Your task to perform on an android device: open app "Google Chrome" Image 0: 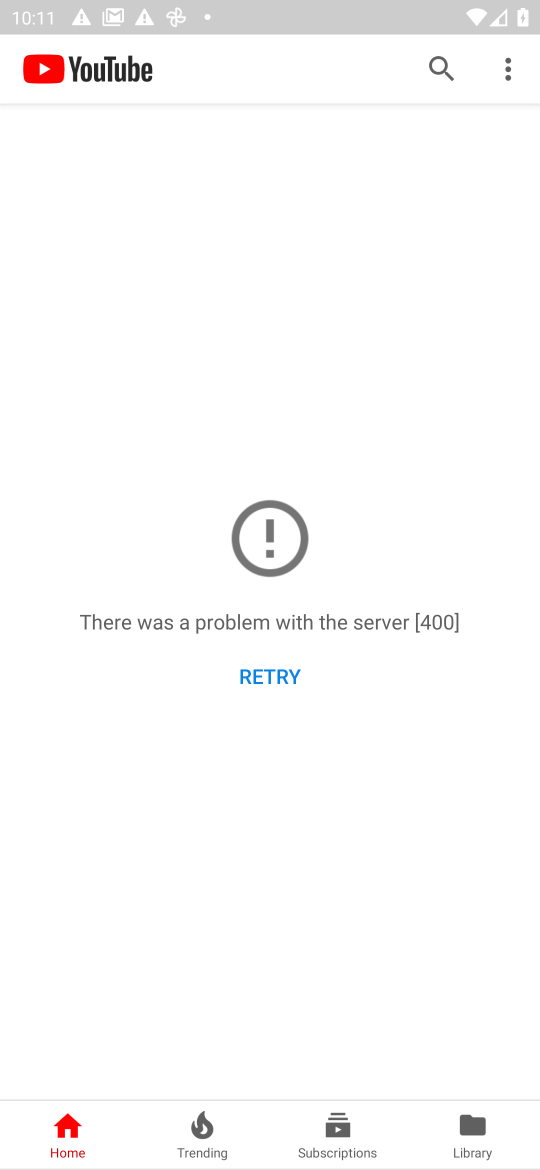
Step 0: press home button
Your task to perform on an android device: open app "Google Chrome" Image 1: 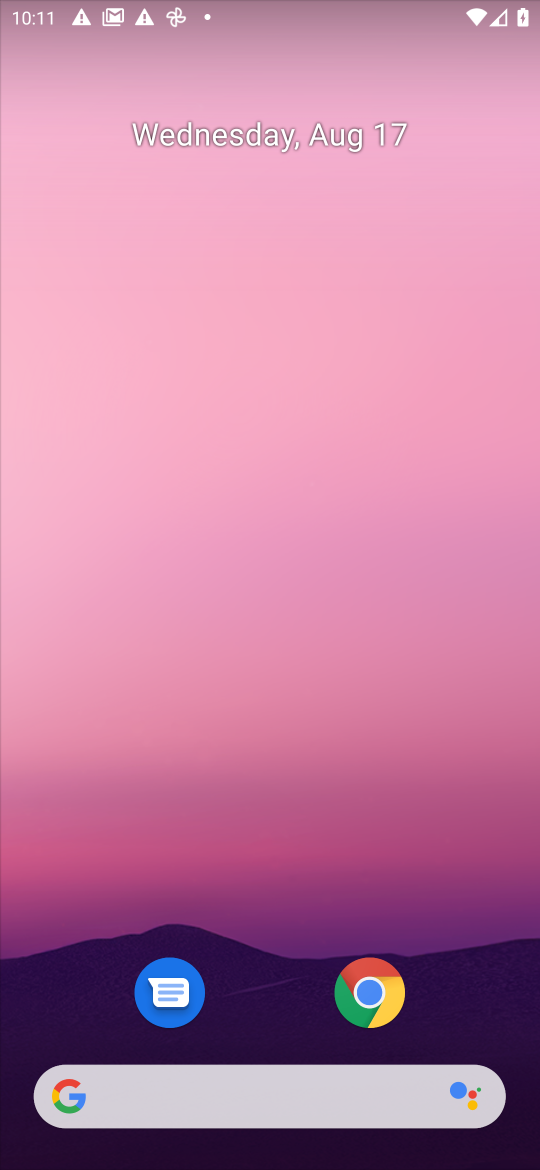
Step 1: drag from (489, 959) to (418, 62)
Your task to perform on an android device: open app "Google Chrome" Image 2: 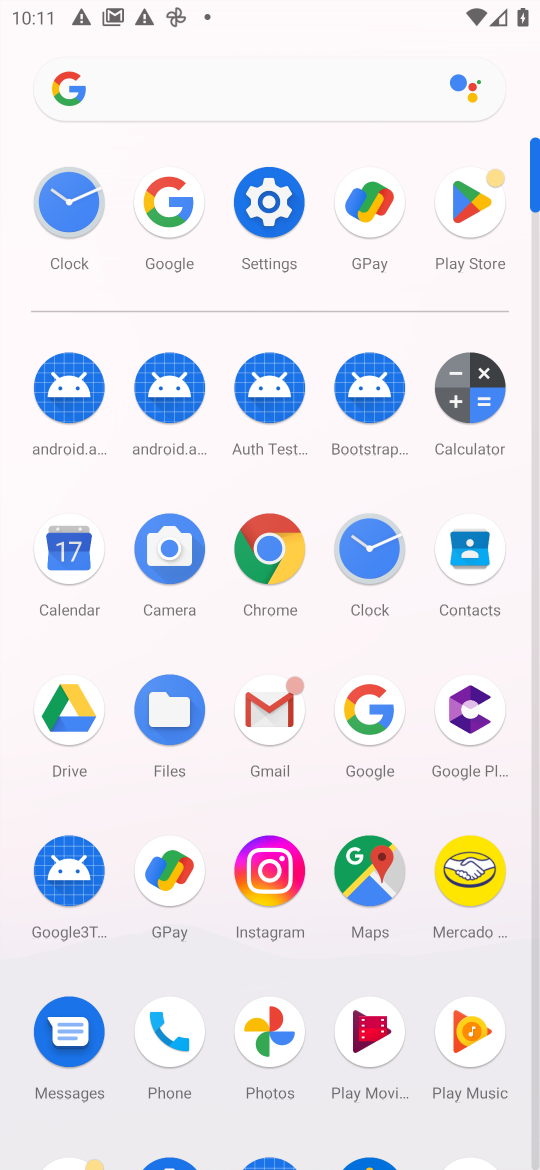
Step 2: click (268, 591)
Your task to perform on an android device: open app "Google Chrome" Image 3: 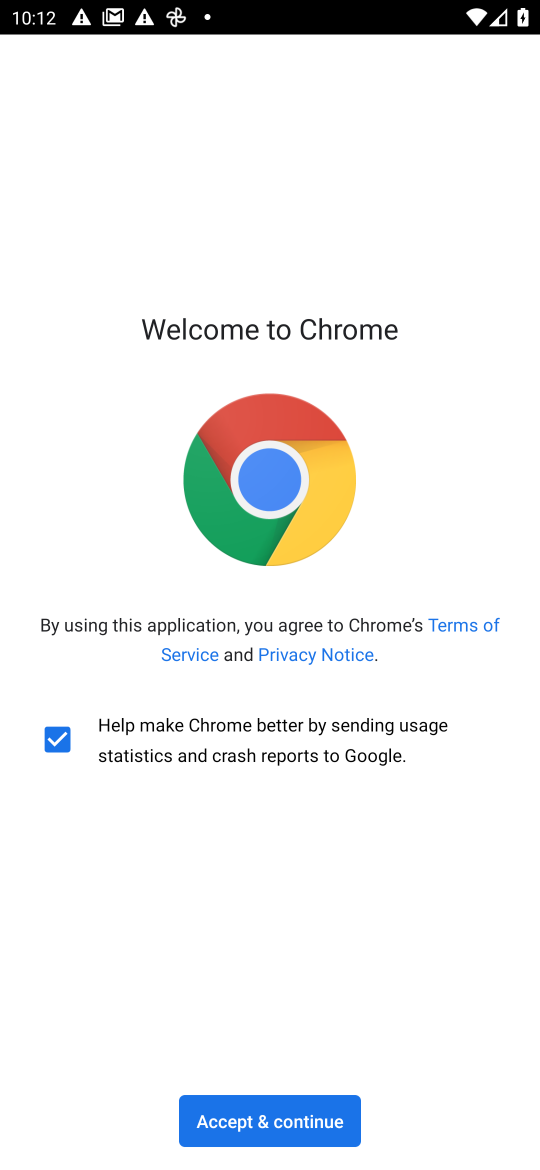
Step 3: click (248, 1112)
Your task to perform on an android device: open app "Google Chrome" Image 4: 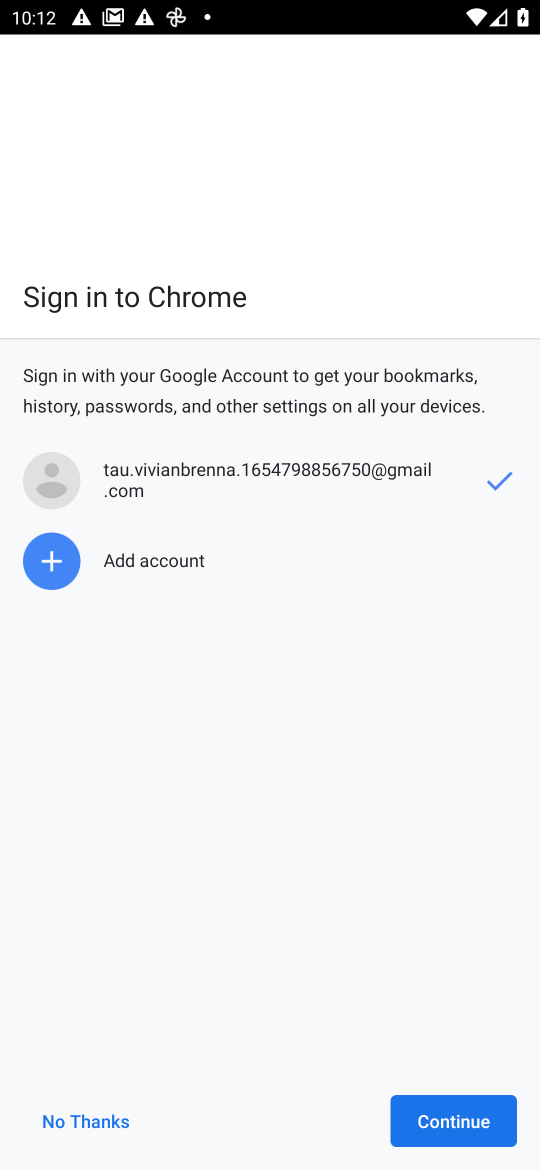
Step 4: click (450, 1128)
Your task to perform on an android device: open app "Google Chrome" Image 5: 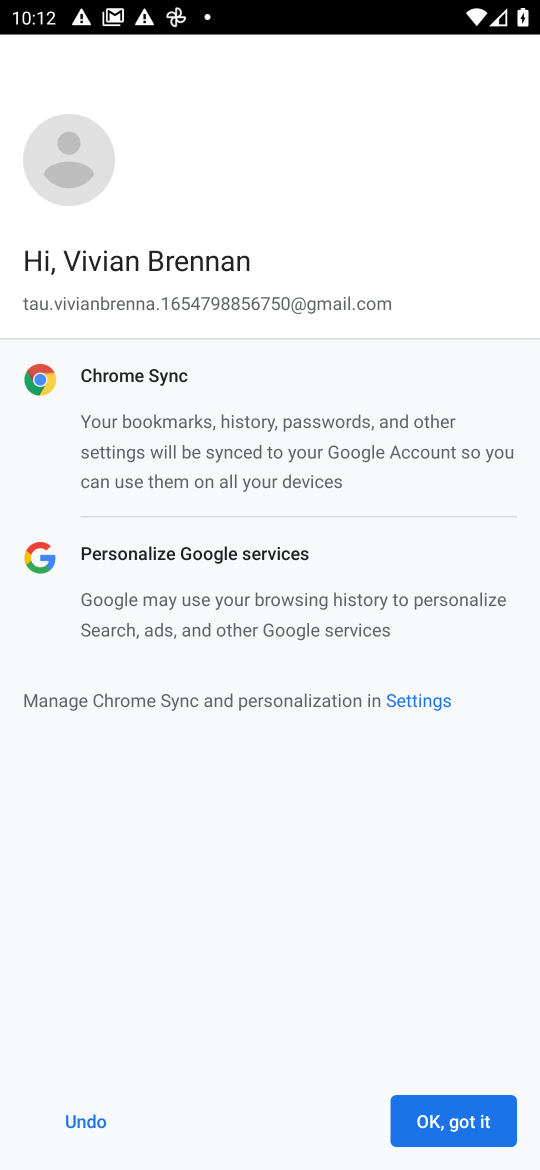
Step 5: click (452, 1126)
Your task to perform on an android device: open app "Google Chrome" Image 6: 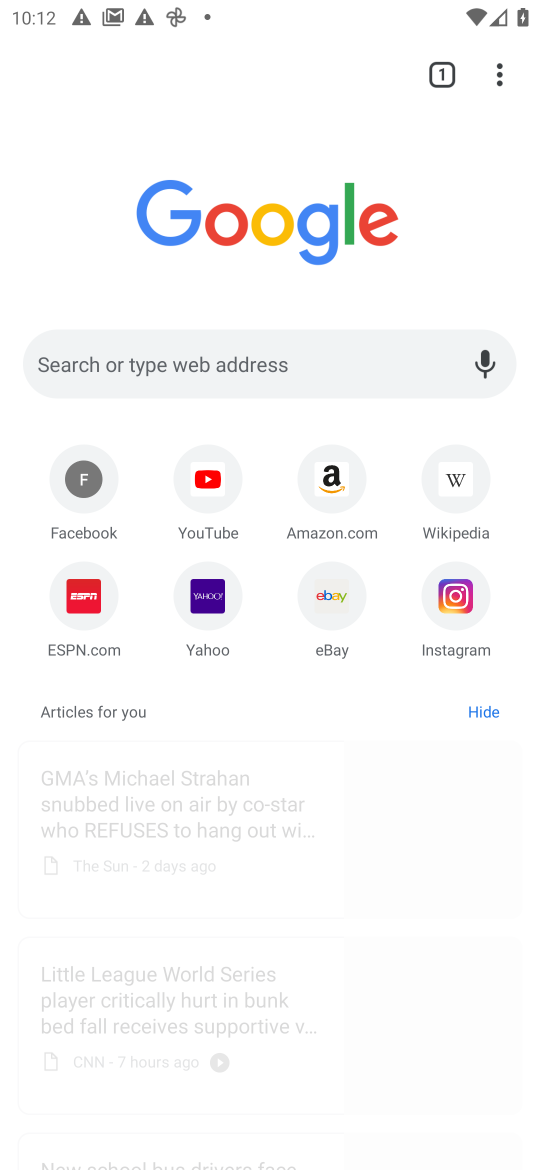
Step 6: task complete